Your task to perform on an android device: turn off data saver in the chrome app Image 0: 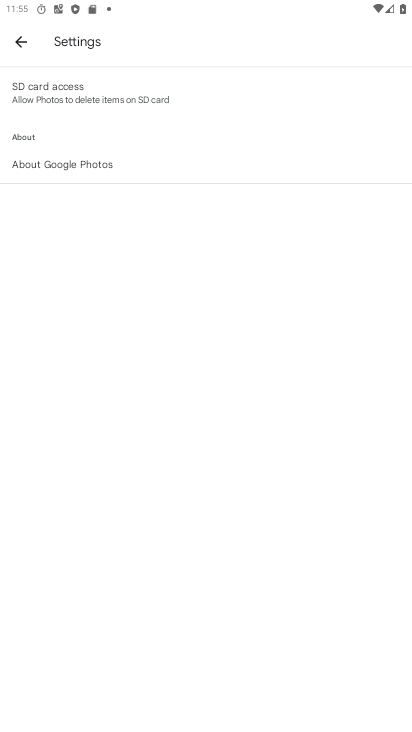
Step 0: press home button
Your task to perform on an android device: turn off data saver in the chrome app Image 1: 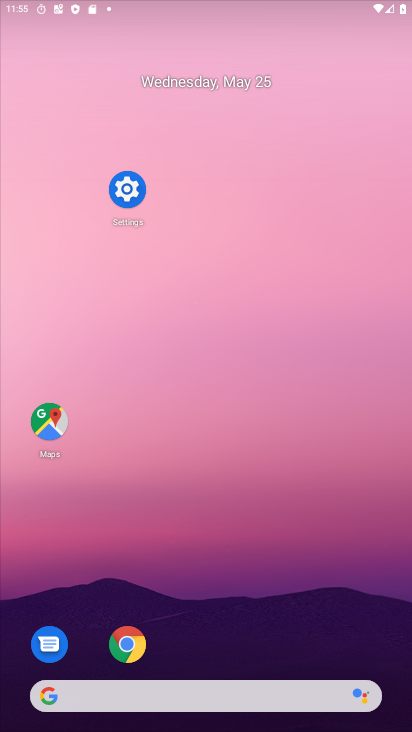
Step 1: click (128, 643)
Your task to perform on an android device: turn off data saver in the chrome app Image 2: 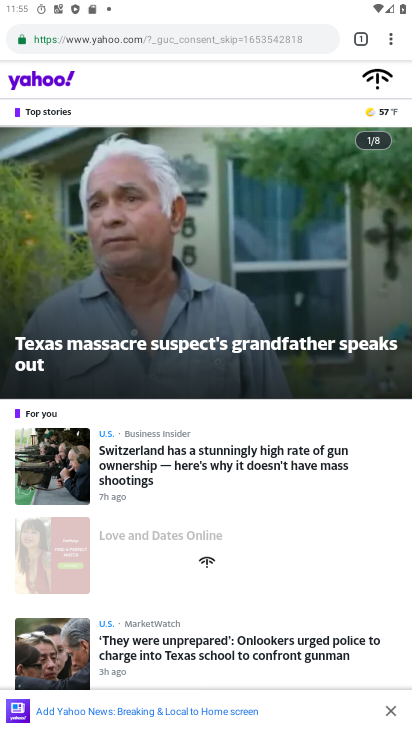
Step 2: click (387, 35)
Your task to perform on an android device: turn off data saver in the chrome app Image 3: 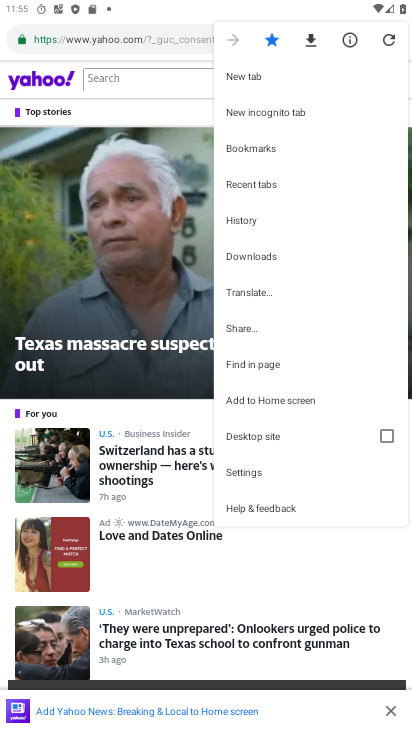
Step 3: click (257, 477)
Your task to perform on an android device: turn off data saver in the chrome app Image 4: 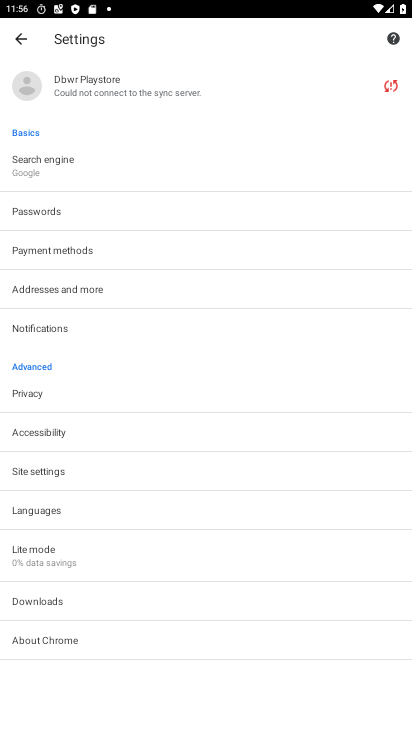
Step 4: click (54, 564)
Your task to perform on an android device: turn off data saver in the chrome app Image 5: 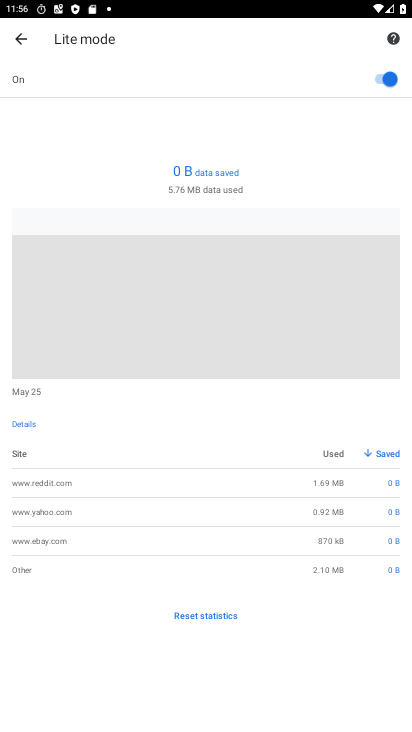
Step 5: click (385, 74)
Your task to perform on an android device: turn off data saver in the chrome app Image 6: 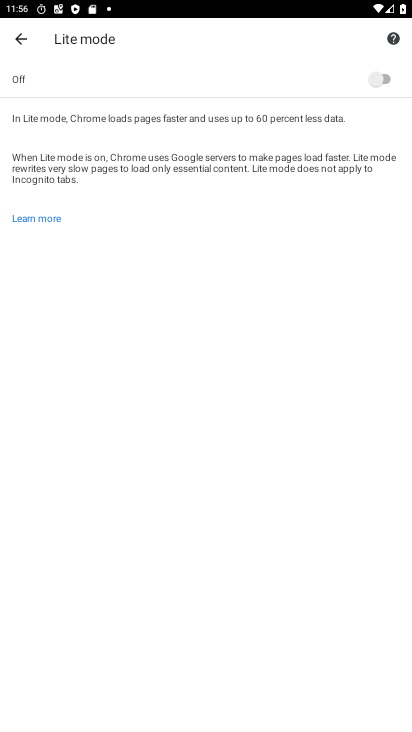
Step 6: task complete